Your task to perform on an android device: turn off picture-in-picture Image 0: 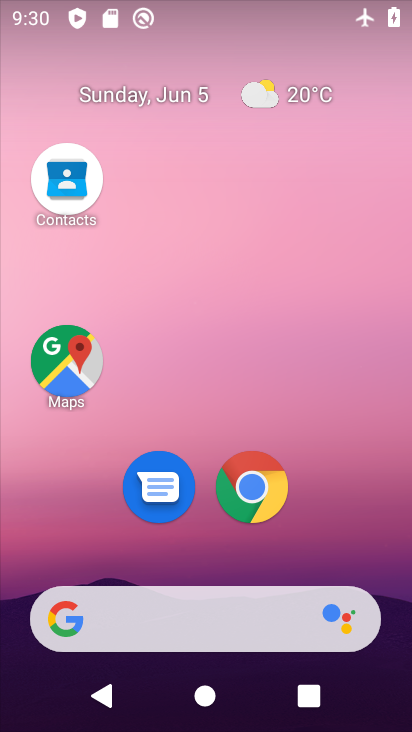
Step 0: drag from (192, 646) to (258, 168)
Your task to perform on an android device: turn off picture-in-picture Image 1: 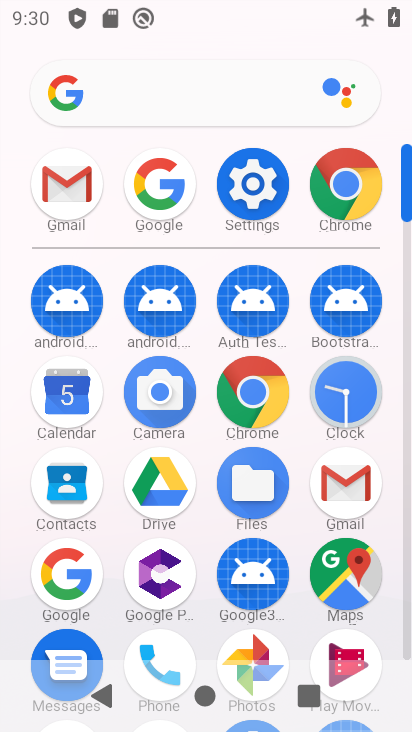
Step 1: click (254, 180)
Your task to perform on an android device: turn off picture-in-picture Image 2: 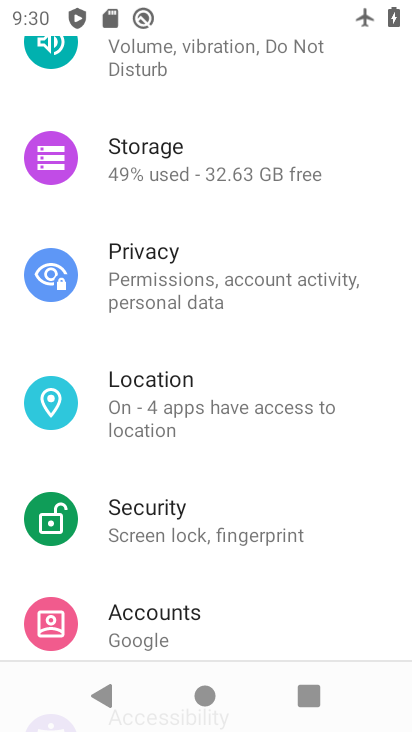
Step 2: drag from (249, 204) to (175, 644)
Your task to perform on an android device: turn off picture-in-picture Image 3: 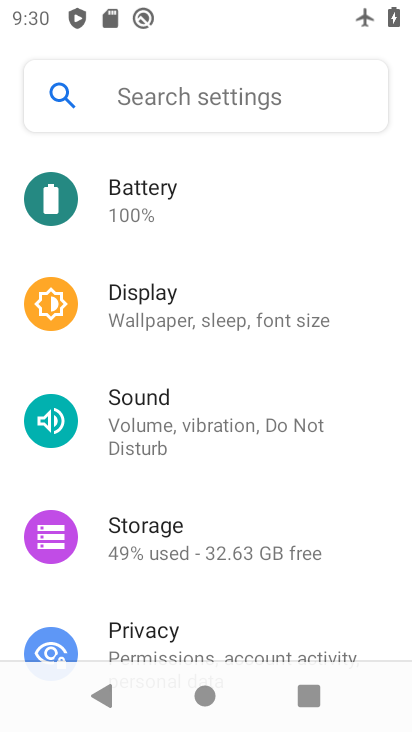
Step 3: drag from (210, 340) to (212, 682)
Your task to perform on an android device: turn off picture-in-picture Image 4: 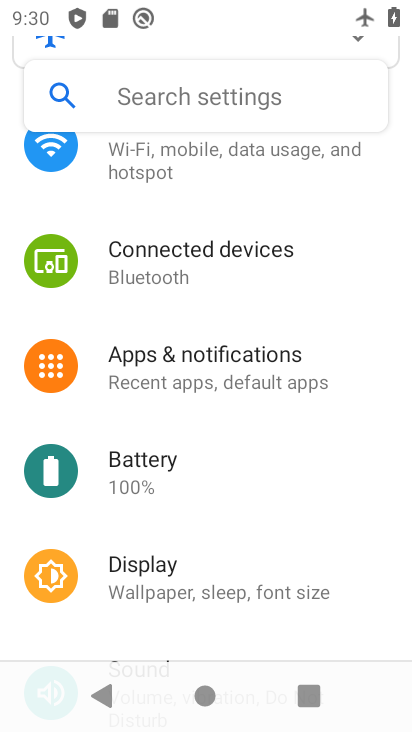
Step 4: drag from (265, 388) to (241, 730)
Your task to perform on an android device: turn off picture-in-picture Image 5: 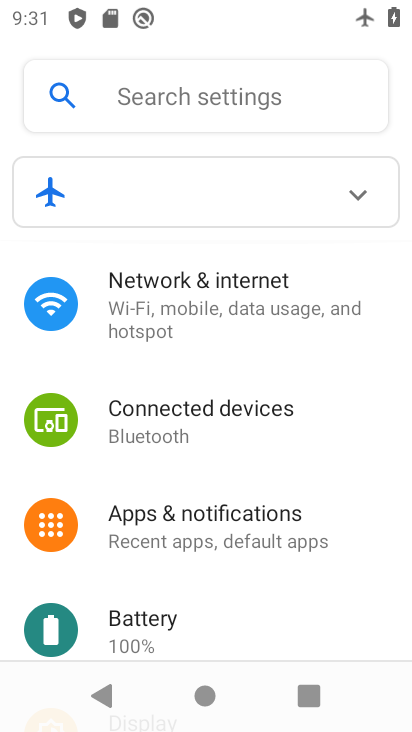
Step 5: drag from (241, 410) to (197, 712)
Your task to perform on an android device: turn off picture-in-picture Image 6: 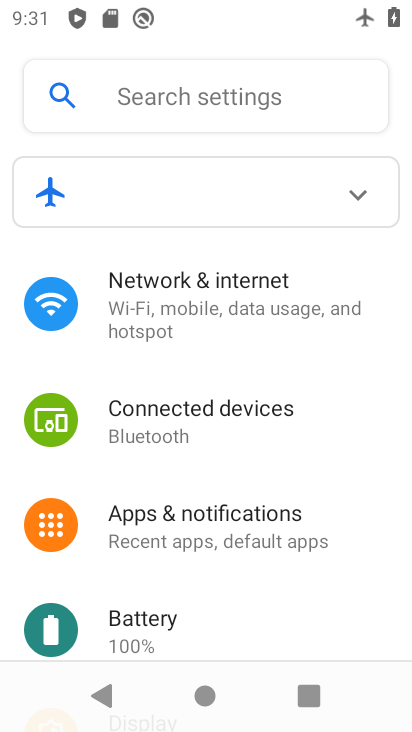
Step 6: click (258, 329)
Your task to perform on an android device: turn off picture-in-picture Image 7: 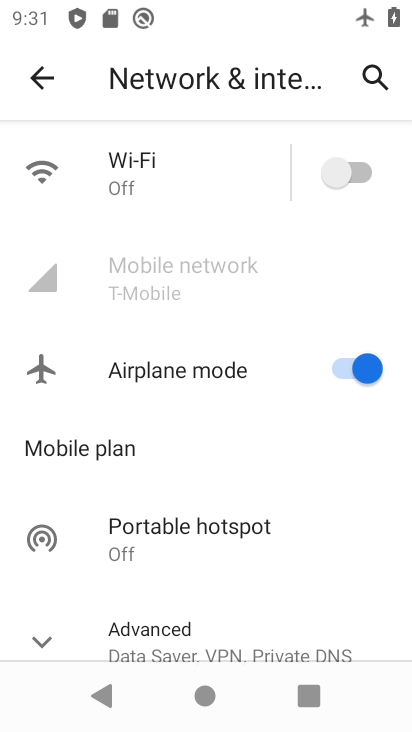
Step 7: click (37, 77)
Your task to perform on an android device: turn off picture-in-picture Image 8: 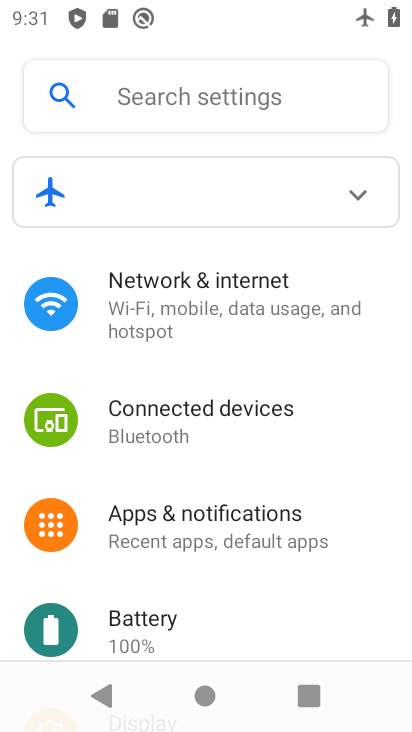
Step 8: click (218, 535)
Your task to perform on an android device: turn off picture-in-picture Image 9: 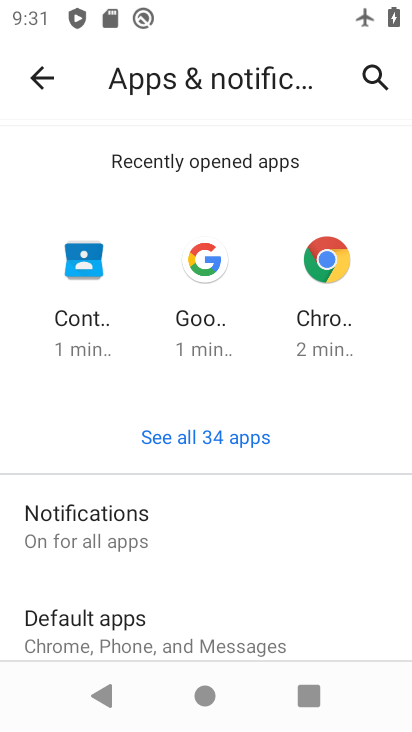
Step 9: drag from (218, 473) to (218, 416)
Your task to perform on an android device: turn off picture-in-picture Image 10: 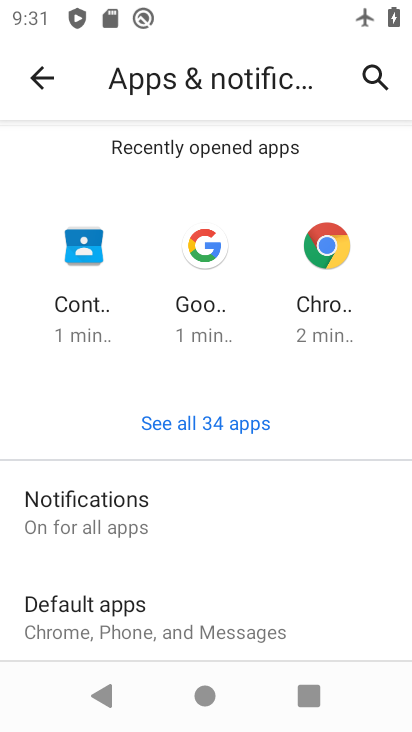
Step 10: drag from (249, 528) to (287, 338)
Your task to perform on an android device: turn off picture-in-picture Image 11: 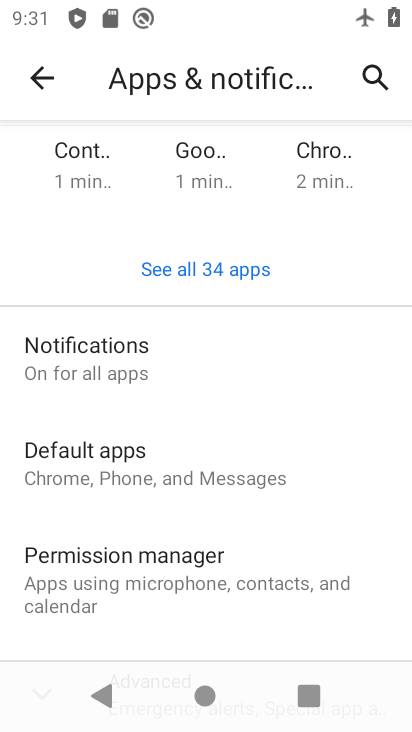
Step 11: drag from (235, 515) to (274, 345)
Your task to perform on an android device: turn off picture-in-picture Image 12: 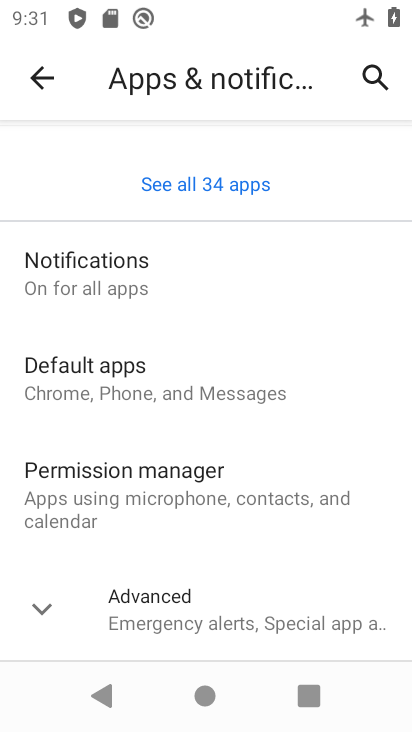
Step 12: drag from (231, 575) to (275, 370)
Your task to perform on an android device: turn off picture-in-picture Image 13: 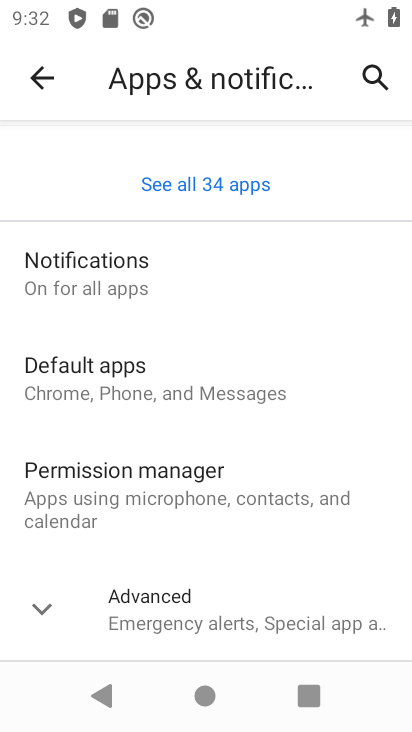
Step 13: click (190, 610)
Your task to perform on an android device: turn off picture-in-picture Image 14: 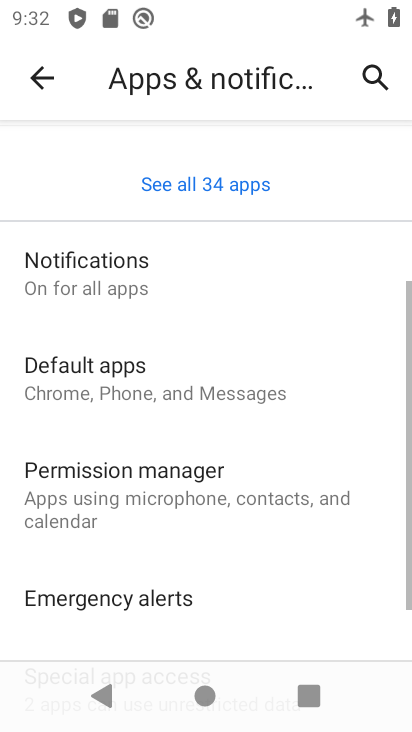
Step 14: drag from (193, 597) to (241, 320)
Your task to perform on an android device: turn off picture-in-picture Image 15: 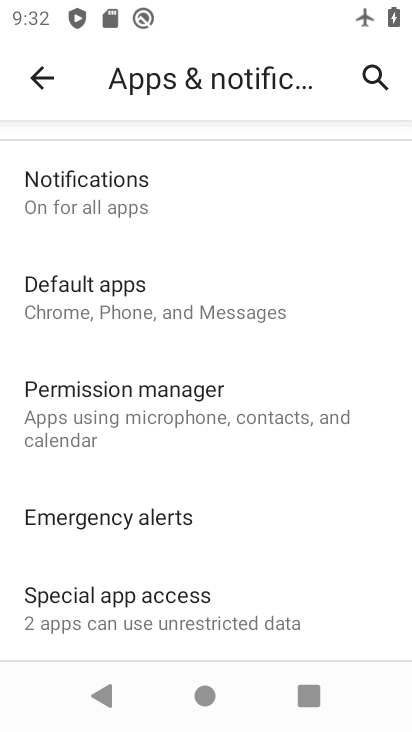
Step 15: click (182, 616)
Your task to perform on an android device: turn off picture-in-picture Image 16: 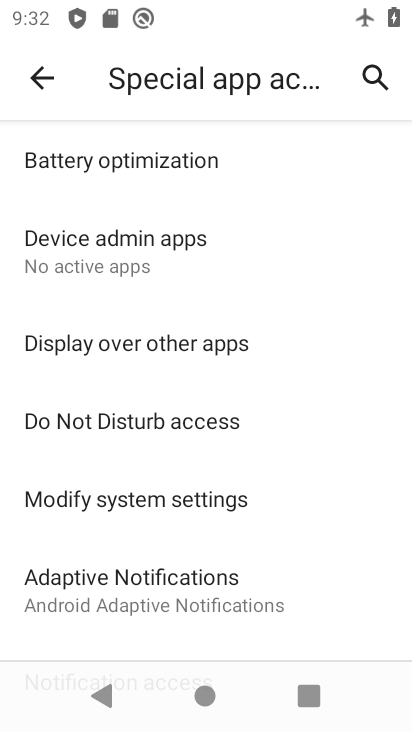
Step 16: drag from (176, 553) to (217, 304)
Your task to perform on an android device: turn off picture-in-picture Image 17: 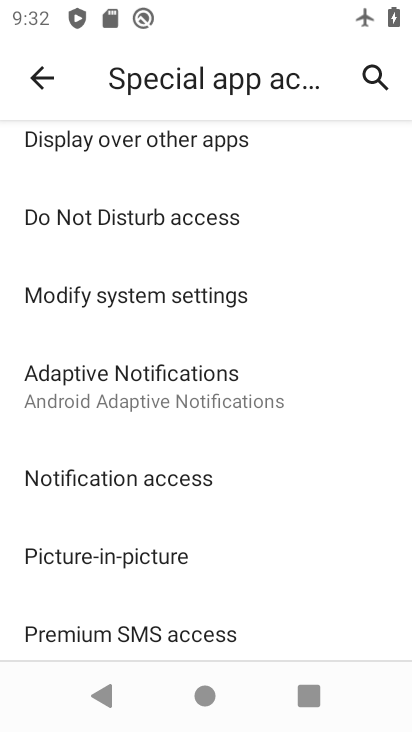
Step 17: click (156, 554)
Your task to perform on an android device: turn off picture-in-picture Image 18: 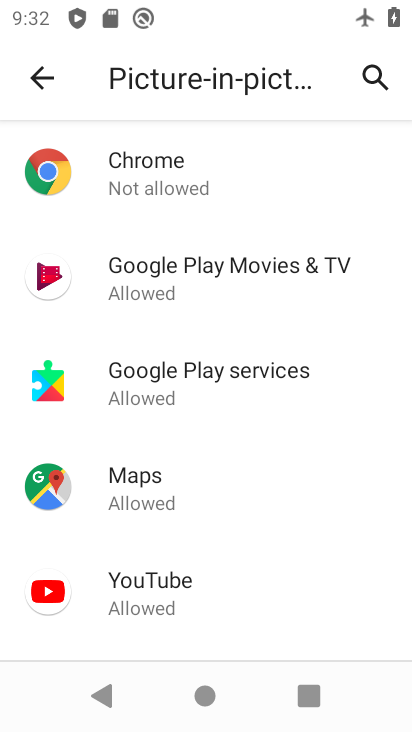
Step 18: click (226, 263)
Your task to perform on an android device: turn off picture-in-picture Image 19: 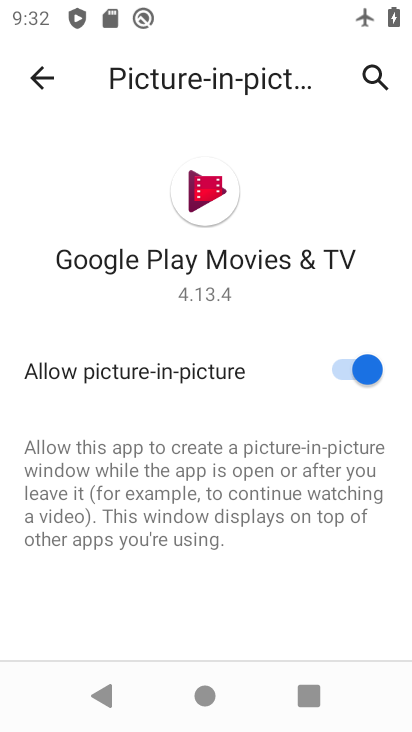
Step 19: click (342, 377)
Your task to perform on an android device: turn off picture-in-picture Image 20: 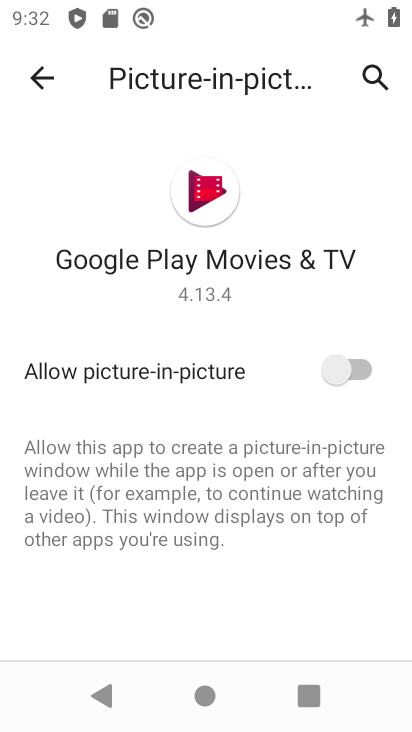
Step 20: task complete